Your task to perform on an android device: Search for pizza restaurants on Maps Image 0: 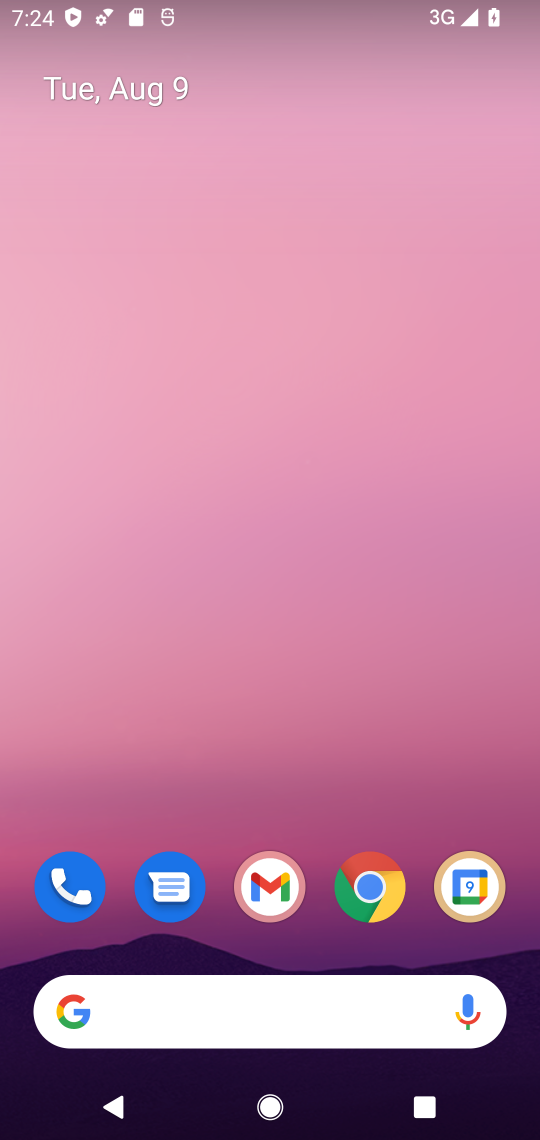
Step 0: drag from (346, 770) to (452, 5)
Your task to perform on an android device: Search for pizza restaurants on Maps Image 1: 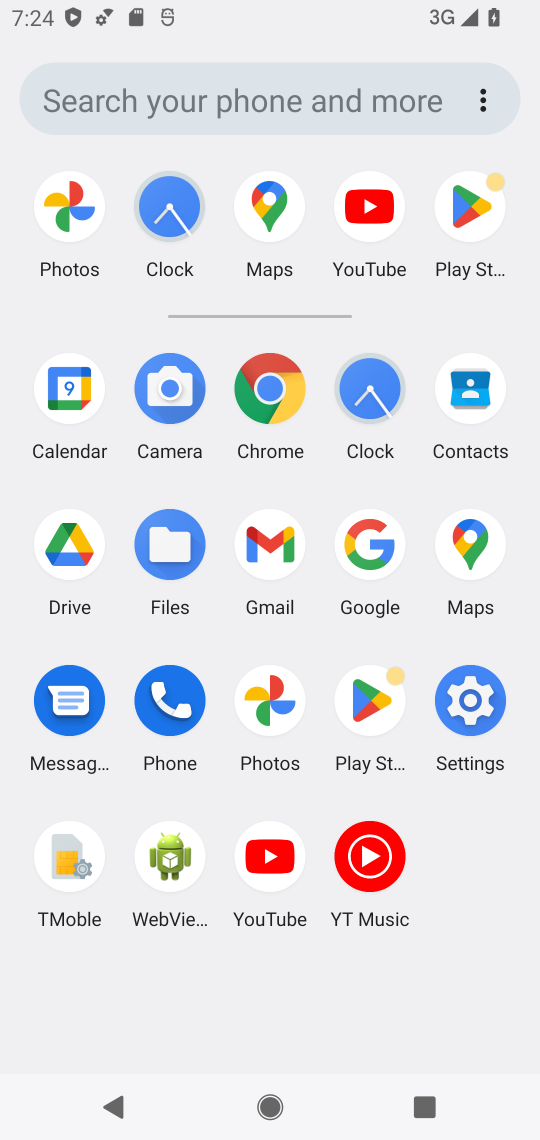
Step 1: click (276, 188)
Your task to perform on an android device: Search for pizza restaurants on Maps Image 2: 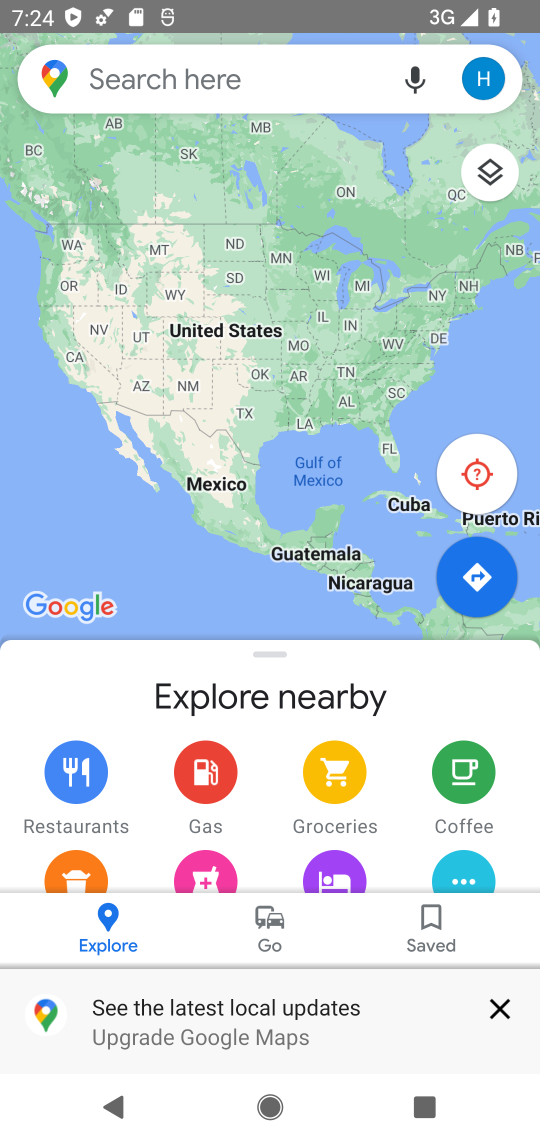
Step 2: click (274, 79)
Your task to perform on an android device: Search for pizza restaurants on Maps Image 3: 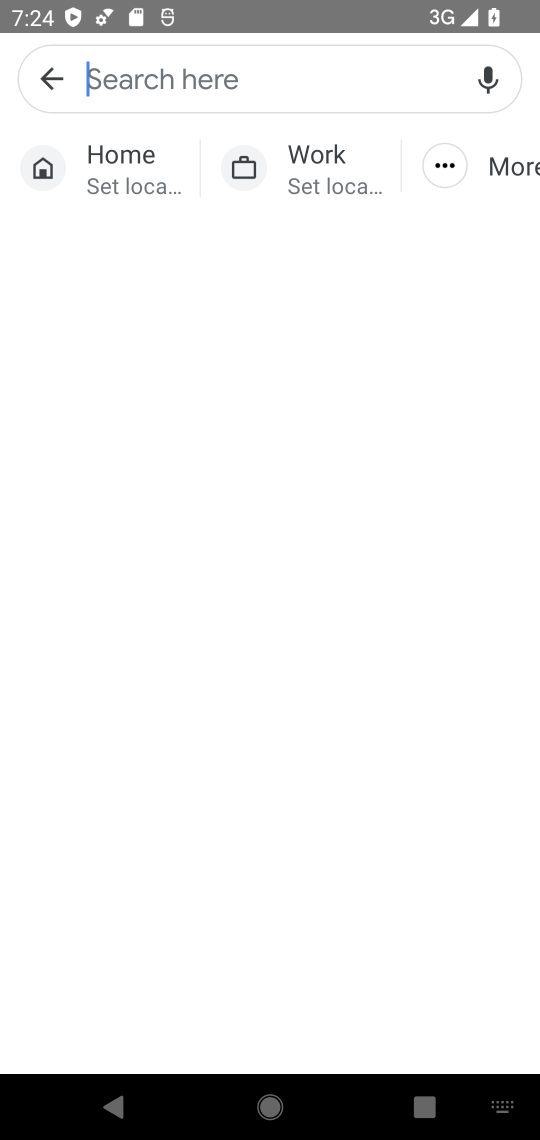
Step 3: type "pizza restaurants"
Your task to perform on an android device: Search for pizza restaurants on Maps Image 4: 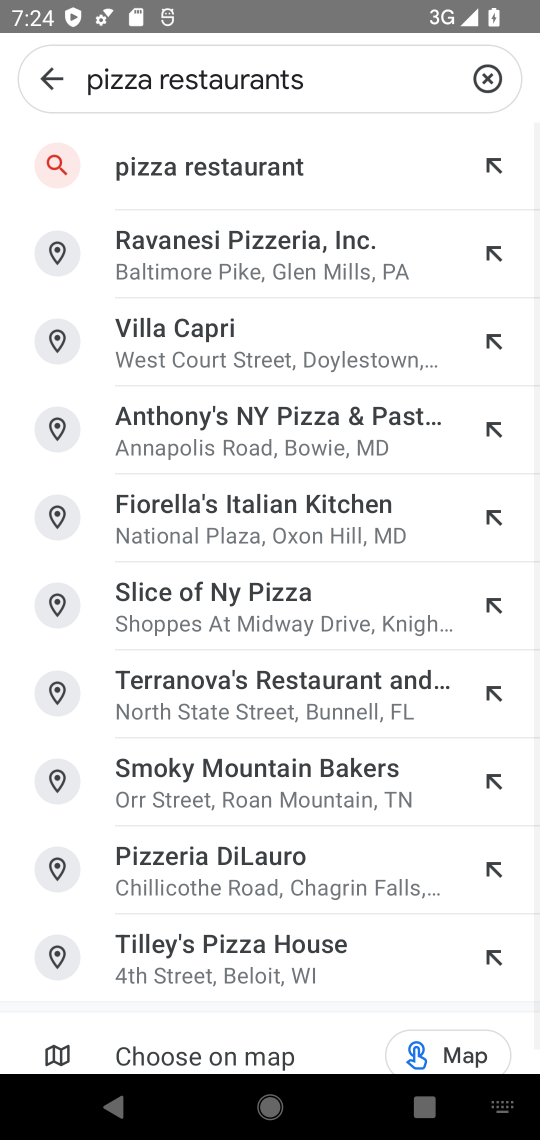
Step 4: click (281, 169)
Your task to perform on an android device: Search for pizza restaurants on Maps Image 5: 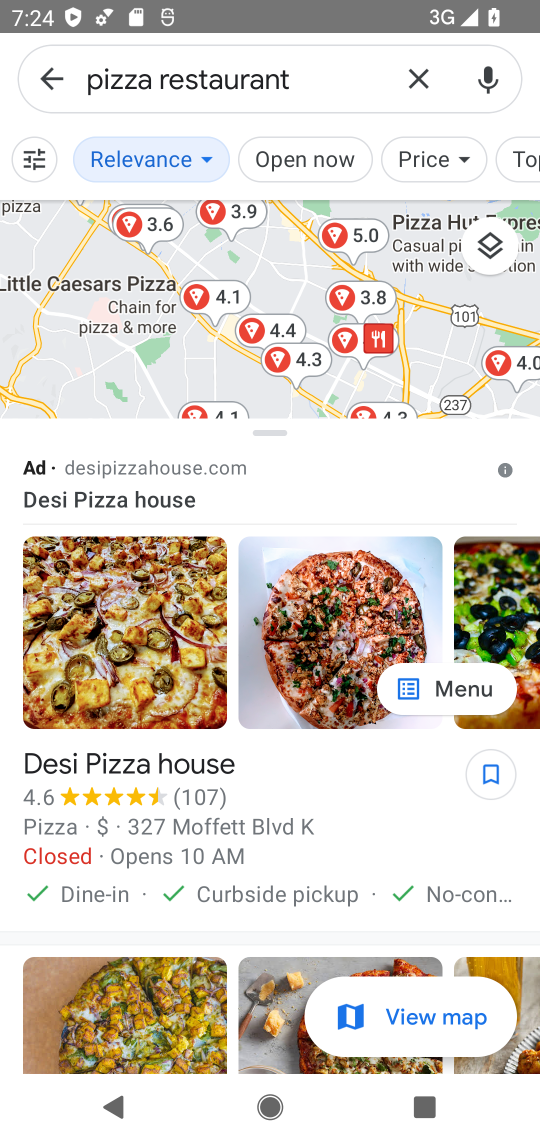
Step 5: task complete